Your task to perform on an android device: turn on bluetooth scan Image 0: 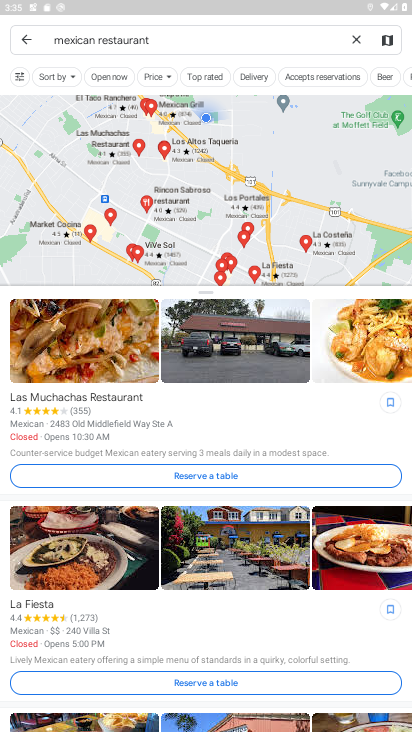
Step 0: press home button
Your task to perform on an android device: turn on bluetooth scan Image 1: 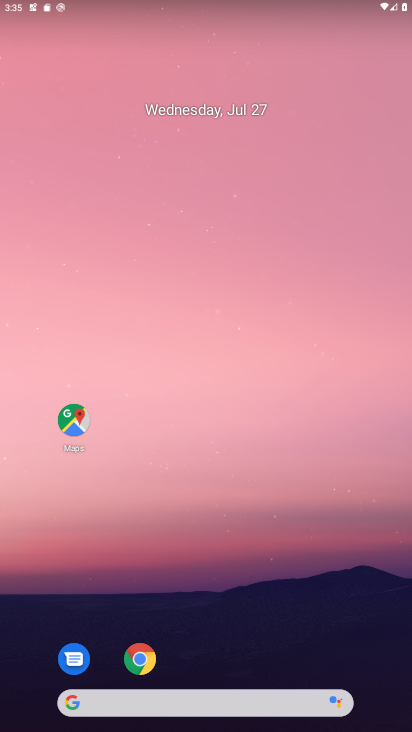
Step 1: drag from (281, 651) to (216, 64)
Your task to perform on an android device: turn on bluetooth scan Image 2: 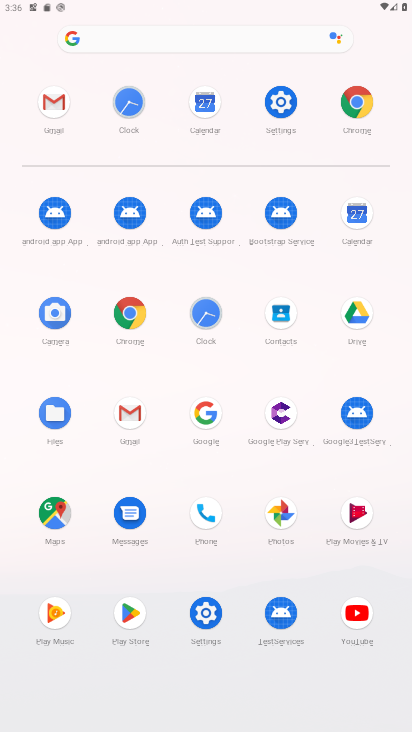
Step 2: click (279, 106)
Your task to perform on an android device: turn on bluetooth scan Image 3: 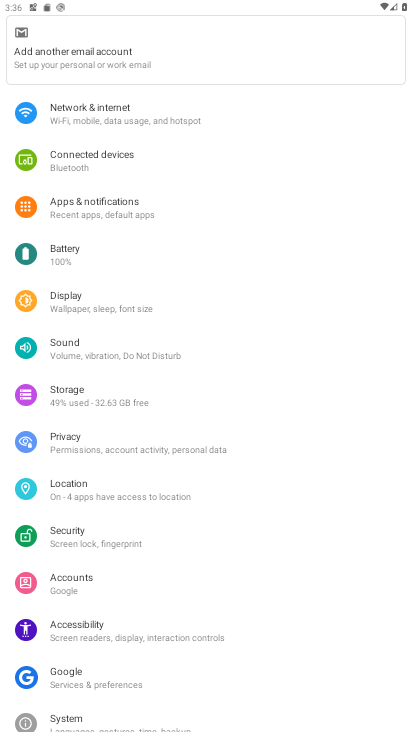
Step 3: click (96, 487)
Your task to perform on an android device: turn on bluetooth scan Image 4: 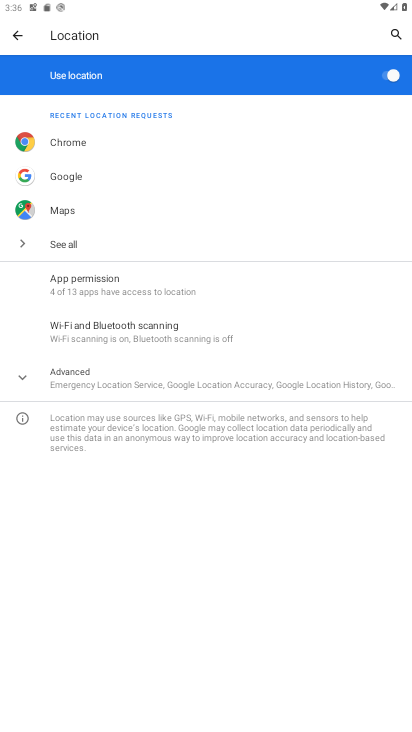
Step 4: click (130, 338)
Your task to perform on an android device: turn on bluetooth scan Image 5: 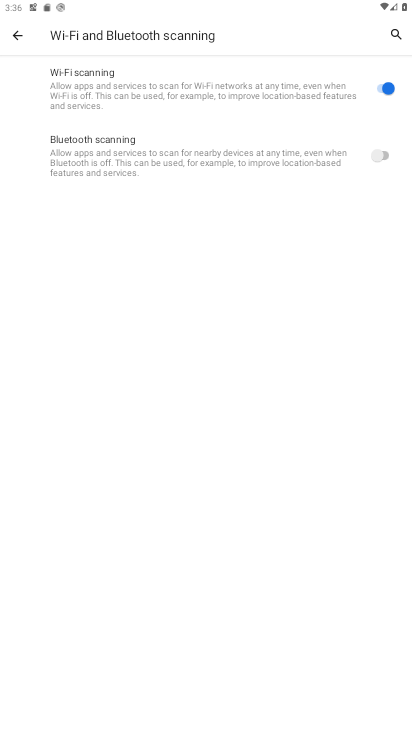
Step 5: click (381, 166)
Your task to perform on an android device: turn on bluetooth scan Image 6: 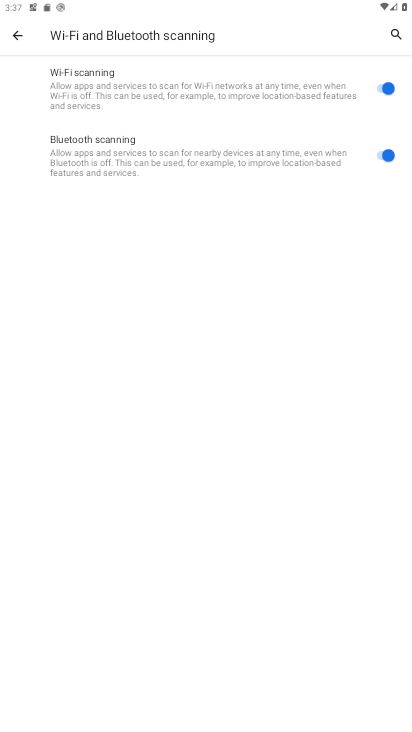
Step 6: task complete